Your task to perform on an android device: open wifi settings Image 0: 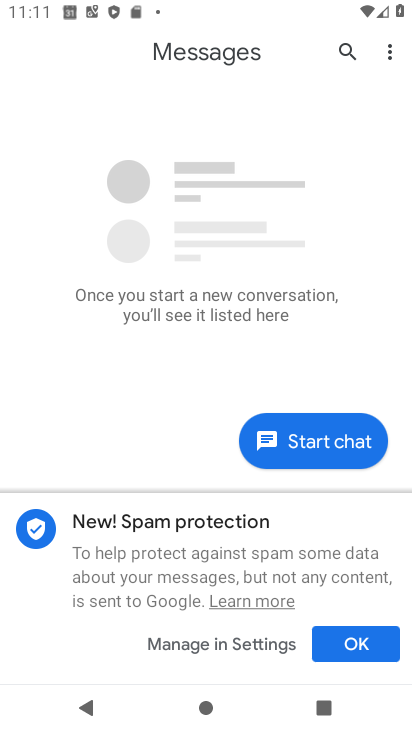
Step 0: press home button
Your task to perform on an android device: open wifi settings Image 1: 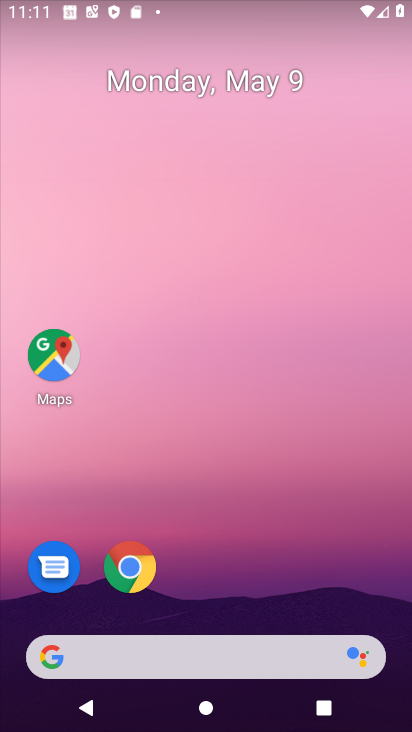
Step 1: drag from (206, 652) to (210, 217)
Your task to perform on an android device: open wifi settings Image 2: 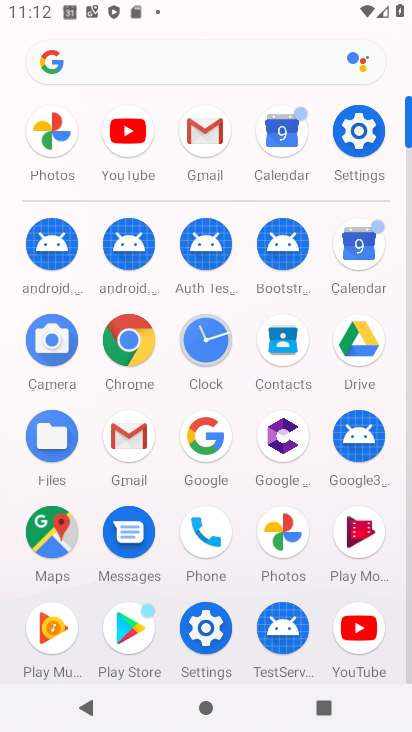
Step 2: click (203, 644)
Your task to perform on an android device: open wifi settings Image 3: 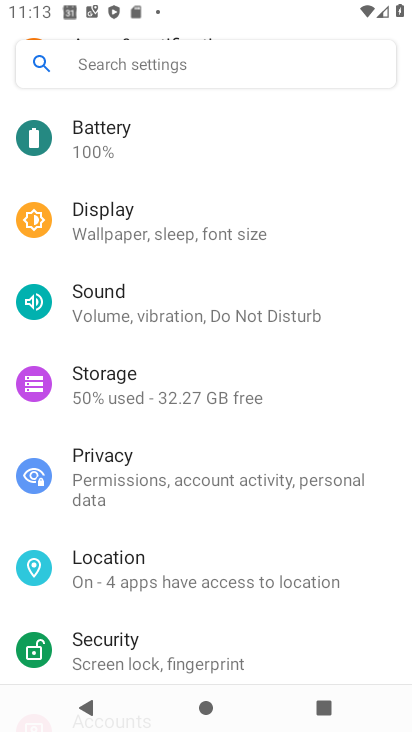
Step 3: drag from (128, 162) to (135, 544)
Your task to perform on an android device: open wifi settings Image 4: 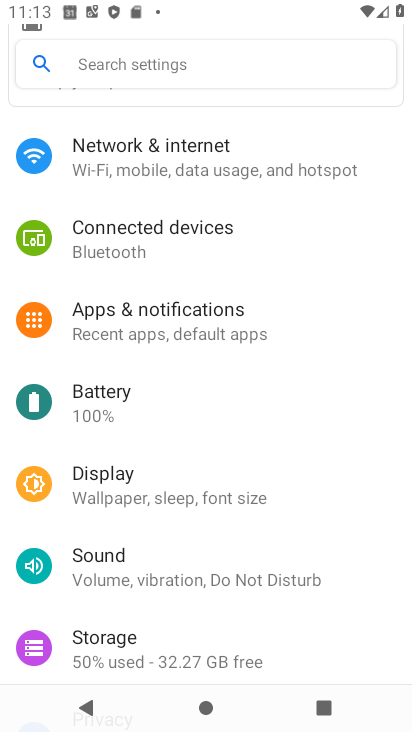
Step 4: click (146, 169)
Your task to perform on an android device: open wifi settings Image 5: 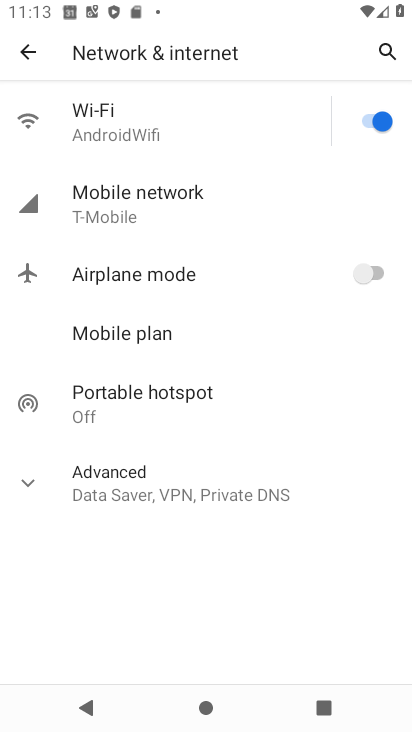
Step 5: click (177, 136)
Your task to perform on an android device: open wifi settings Image 6: 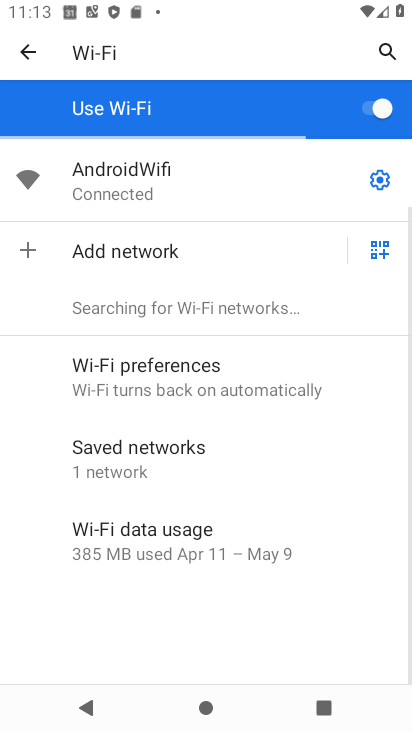
Step 6: task complete